Your task to perform on an android device: When is my next meeting? Image 0: 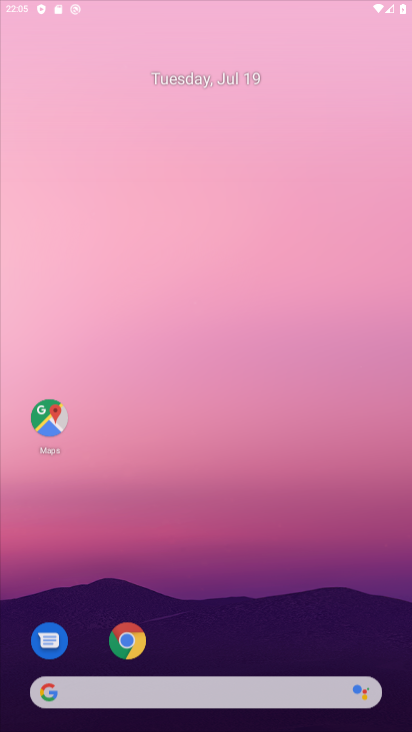
Step 0: drag from (293, 249) to (304, 48)
Your task to perform on an android device: When is my next meeting? Image 1: 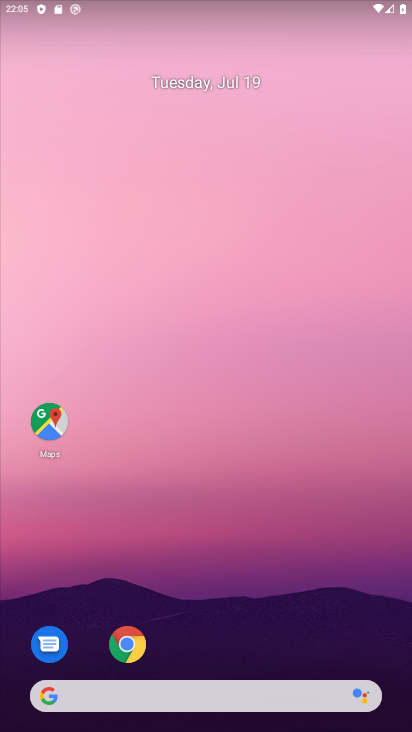
Step 1: drag from (360, 626) to (317, 0)
Your task to perform on an android device: When is my next meeting? Image 2: 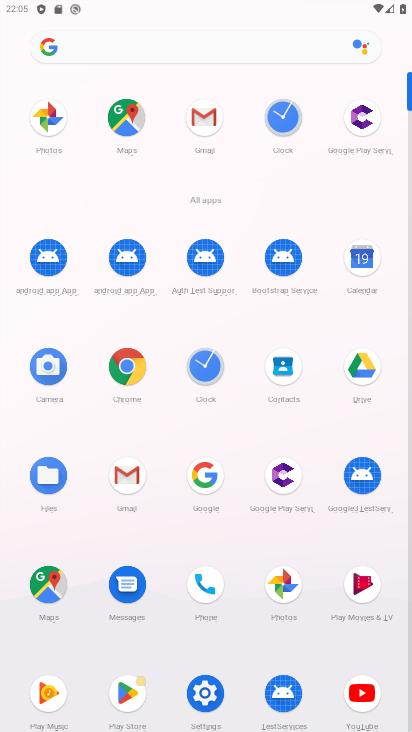
Step 2: click (362, 261)
Your task to perform on an android device: When is my next meeting? Image 3: 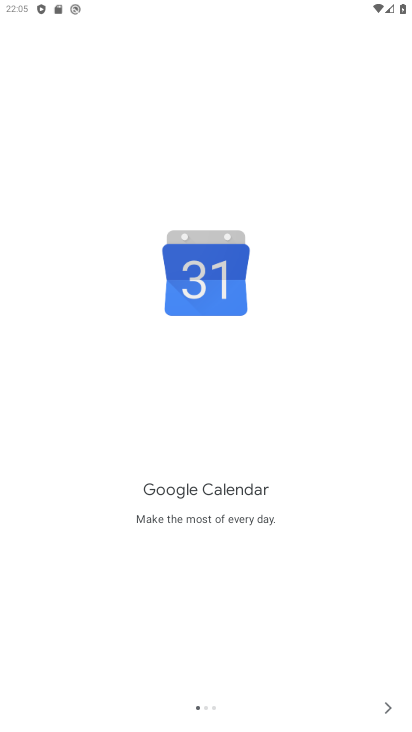
Step 3: click (385, 703)
Your task to perform on an android device: When is my next meeting? Image 4: 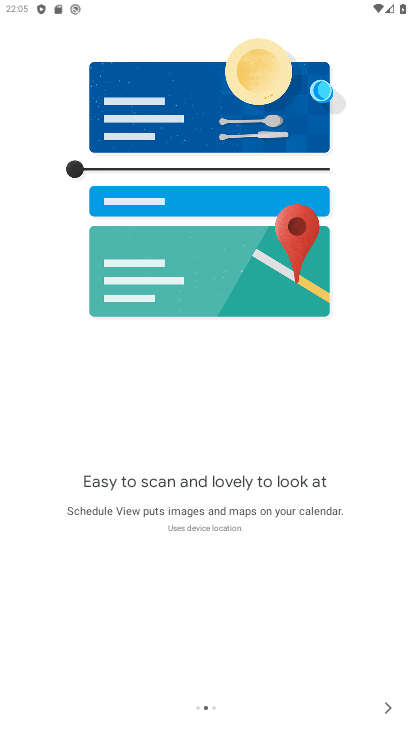
Step 4: click (385, 703)
Your task to perform on an android device: When is my next meeting? Image 5: 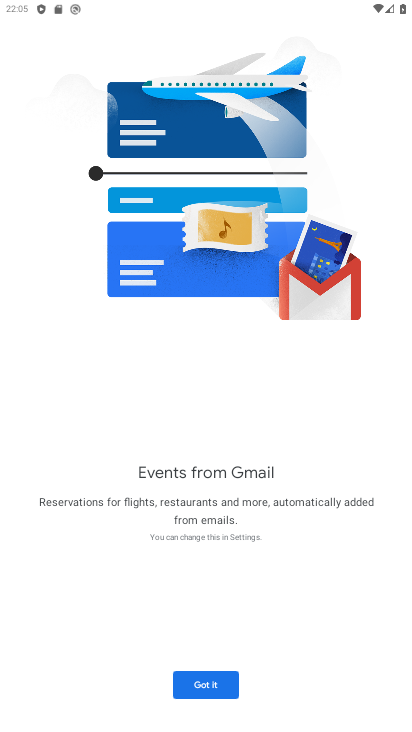
Step 5: click (227, 688)
Your task to perform on an android device: When is my next meeting? Image 6: 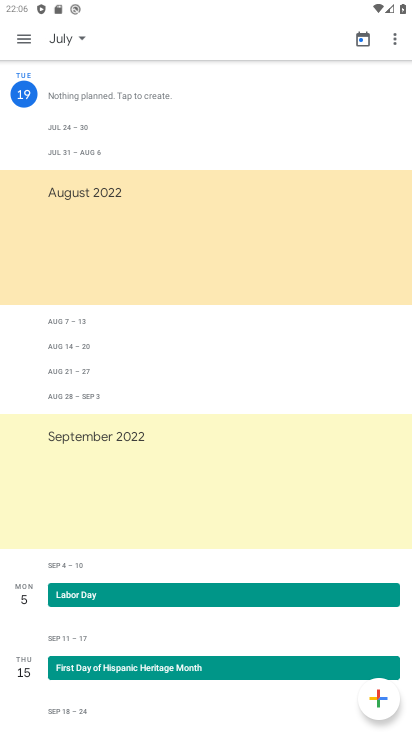
Step 6: click (72, 35)
Your task to perform on an android device: When is my next meeting? Image 7: 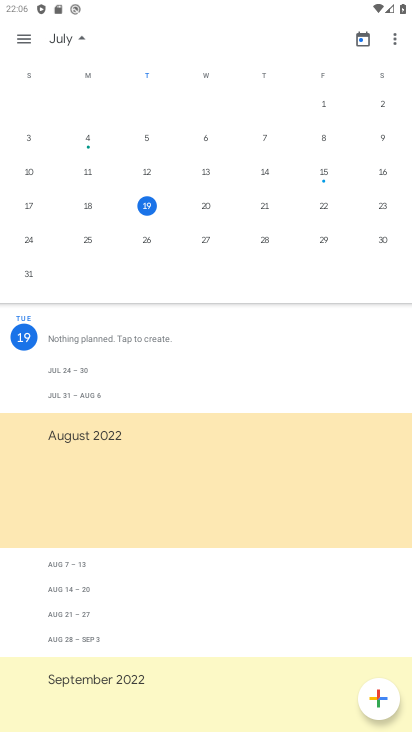
Step 7: click (203, 202)
Your task to perform on an android device: When is my next meeting? Image 8: 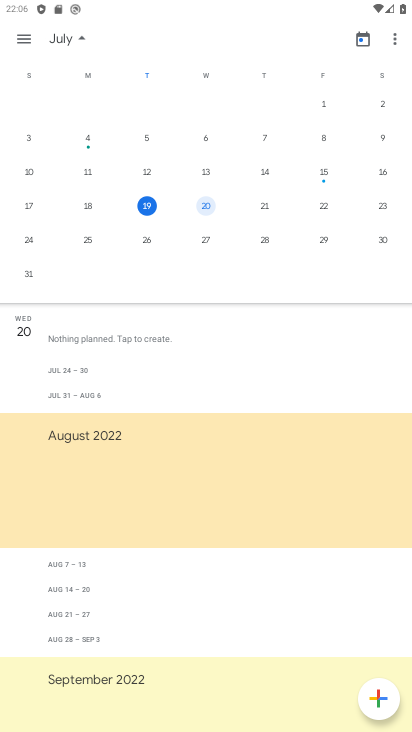
Step 8: task complete